Your task to perform on an android device: Check the news Image 0: 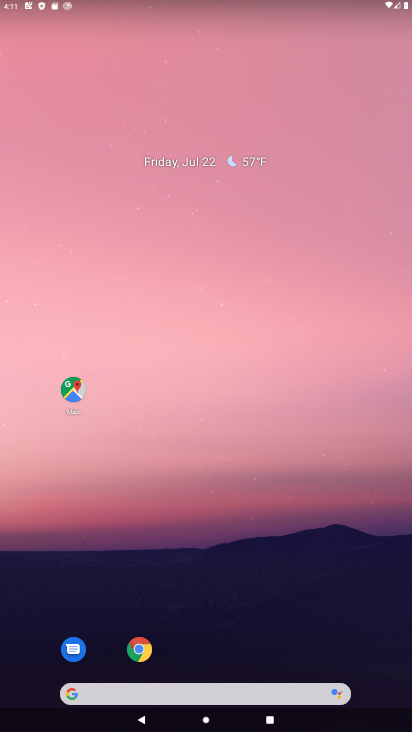
Step 0: click (109, 694)
Your task to perform on an android device: Check the news Image 1: 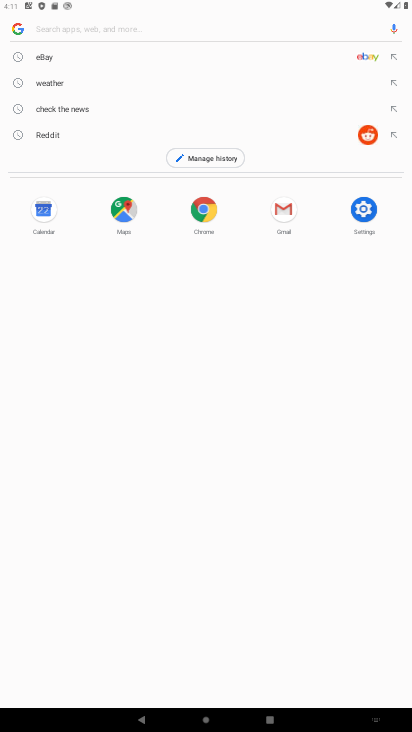
Step 1: click (68, 108)
Your task to perform on an android device: Check the news Image 2: 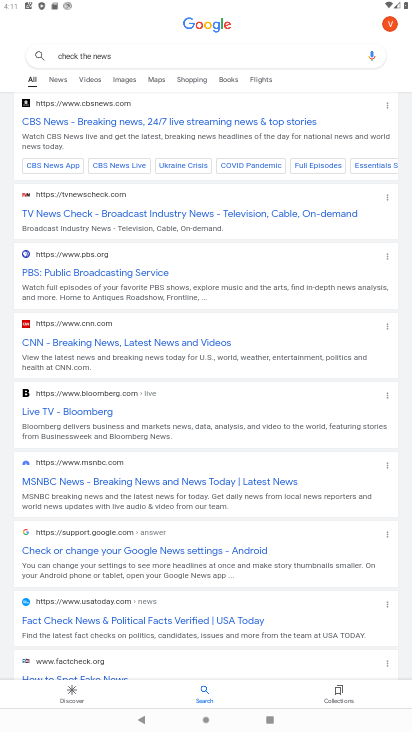
Step 2: task complete